Your task to perform on an android device: Open Google Maps and go to "Timeline" Image 0: 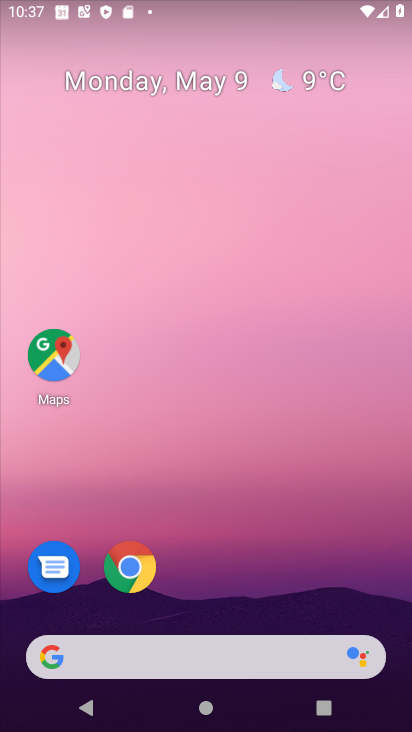
Step 0: drag from (227, 619) to (227, 47)
Your task to perform on an android device: Open Google Maps and go to "Timeline" Image 1: 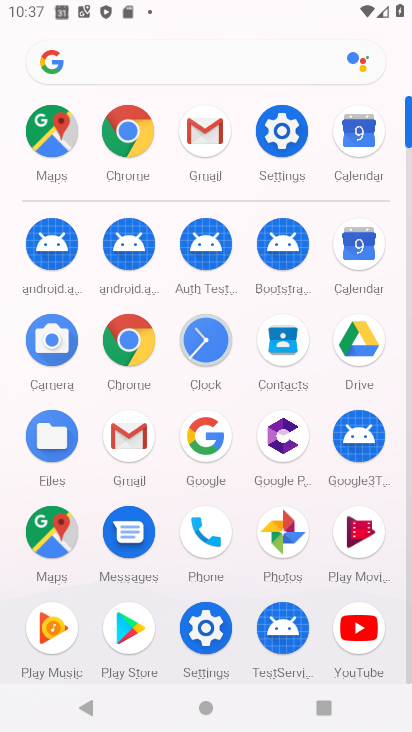
Step 1: click (57, 530)
Your task to perform on an android device: Open Google Maps and go to "Timeline" Image 2: 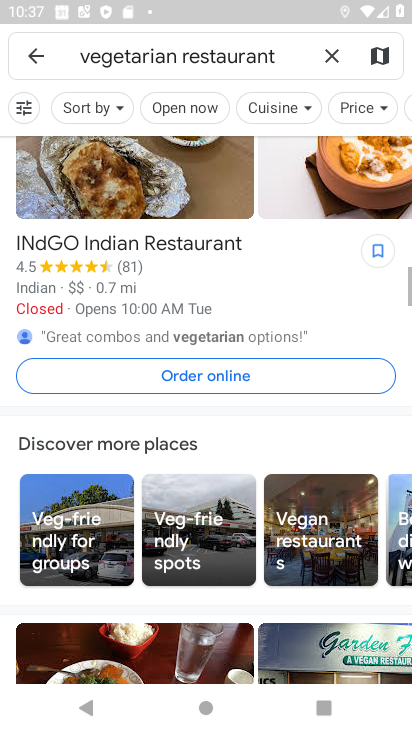
Step 2: click (330, 52)
Your task to perform on an android device: Open Google Maps and go to "Timeline" Image 3: 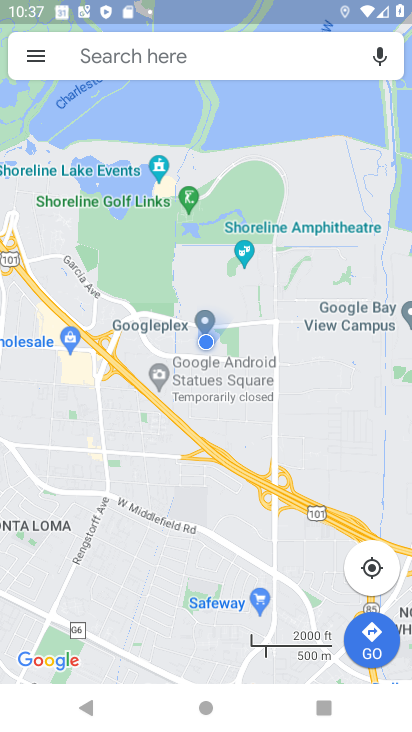
Step 3: click (26, 56)
Your task to perform on an android device: Open Google Maps and go to "Timeline" Image 4: 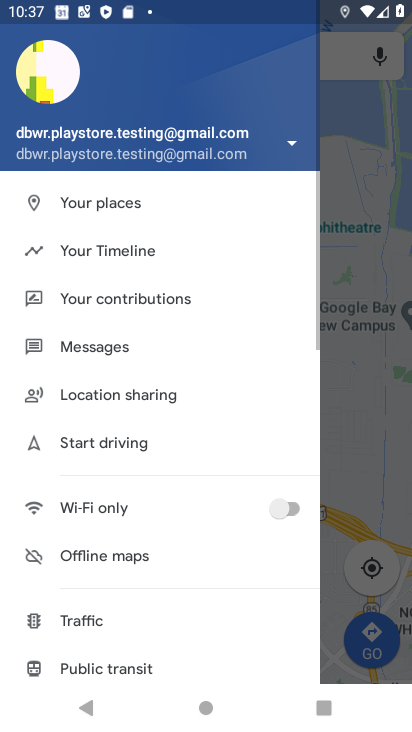
Step 4: click (119, 256)
Your task to perform on an android device: Open Google Maps and go to "Timeline" Image 5: 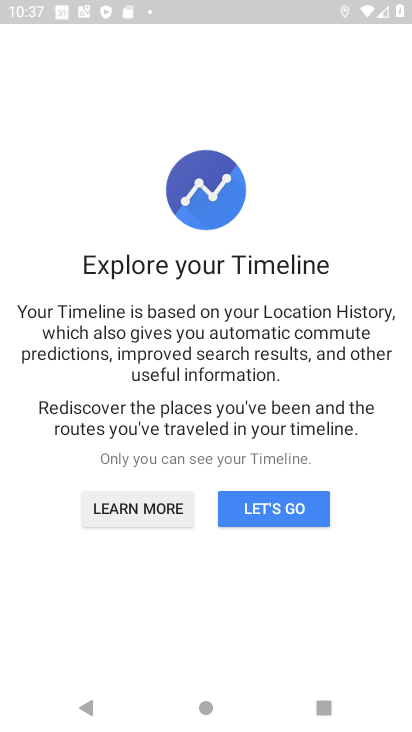
Step 5: click (269, 517)
Your task to perform on an android device: Open Google Maps and go to "Timeline" Image 6: 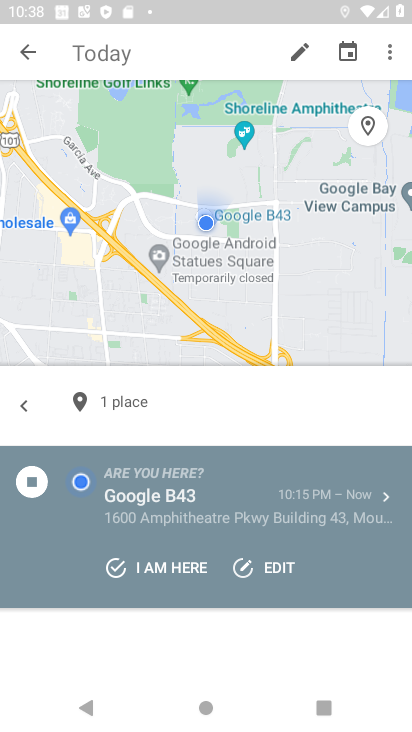
Step 6: task complete